Your task to perform on an android device: delete the emails in spam in the gmail app Image 0: 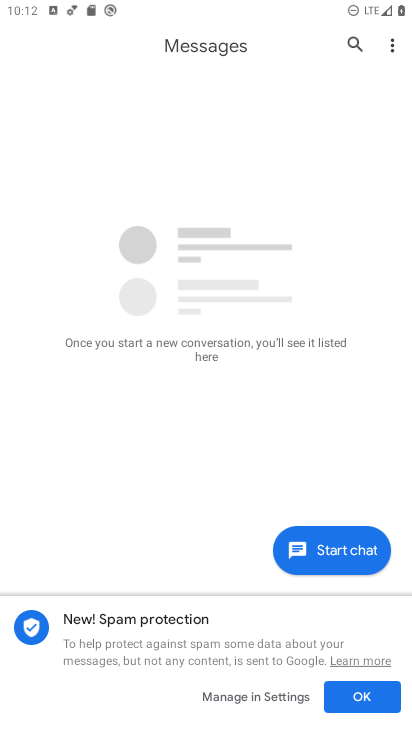
Step 0: press home button
Your task to perform on an android device: delete the emails in spam in the gmail app Image 1: 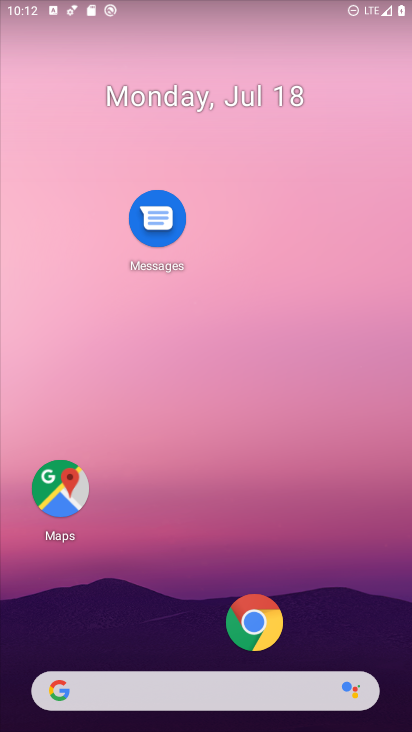
Step 1: drag from (212, 692) to (296, 229)
Your task to perform on an android device: delete the emails in spam in the gmail app Image 2: 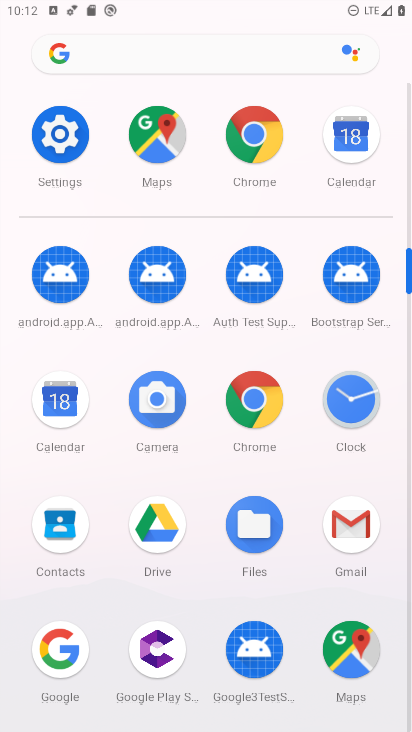
Step 2: click (358, 540)
Your task to perform on an android device: delete the emails in spam in the gmail app Image 3: 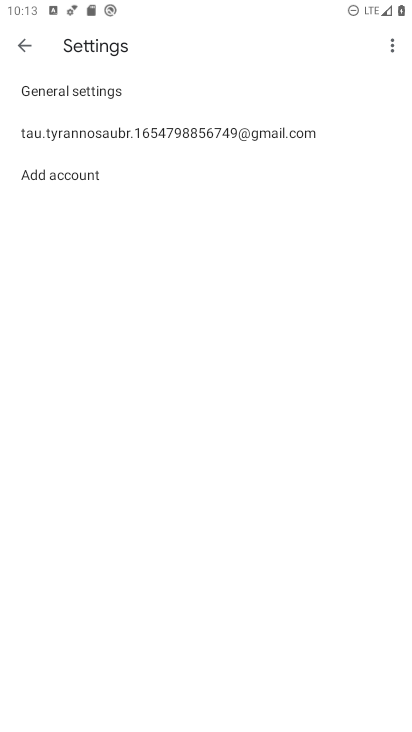
Step 3: click (29, 49)
Your task to perform on an android device: delete the emails in spam in the gmail app Image 4: 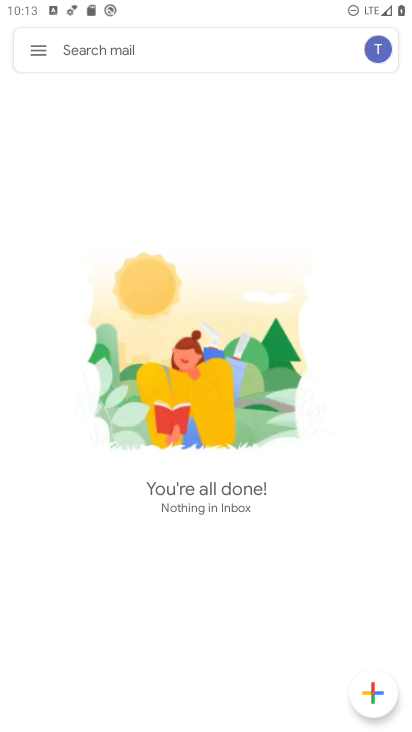
Step 4: click (46, 43)
Your task to perform on an android device: delete the emails in spam in the gmail app Image 5: 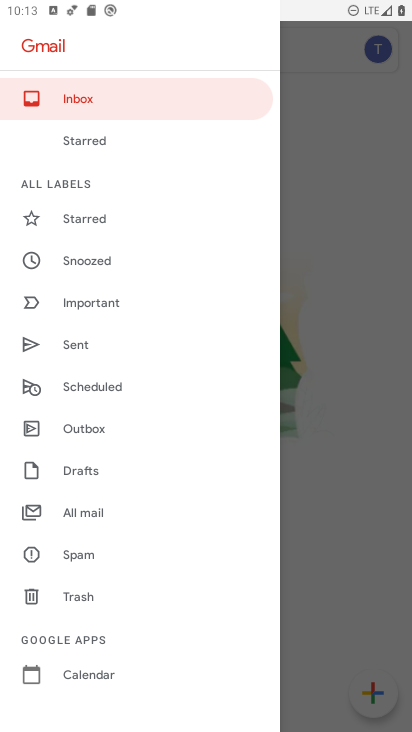
Step 5: click (92, 553)
Your task to perform on an android device: delete the emails in spam in the gmail app Image 6: 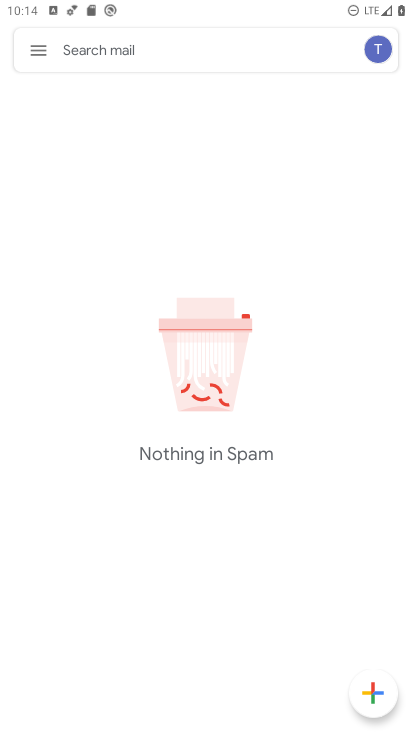
Step 6: task complete